Your task to perform on an android device: Turn on the flashlight Image 0: 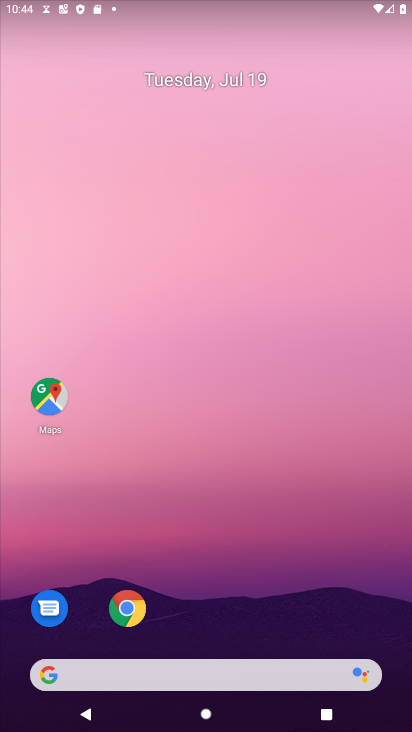
Step 0: drag from (290, 584) to (290, 78)
Your task to perform on an android device: Turn on the flashlight Image 1: 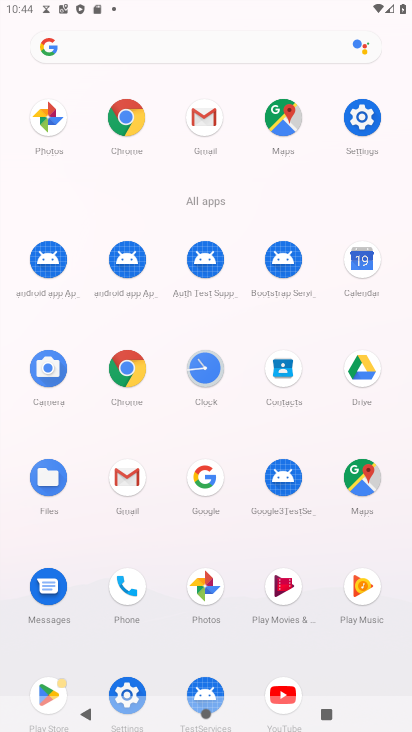
Step 1: click (353, 112)
Your task to perform on an android device: Turn on the flashlight Image 2: 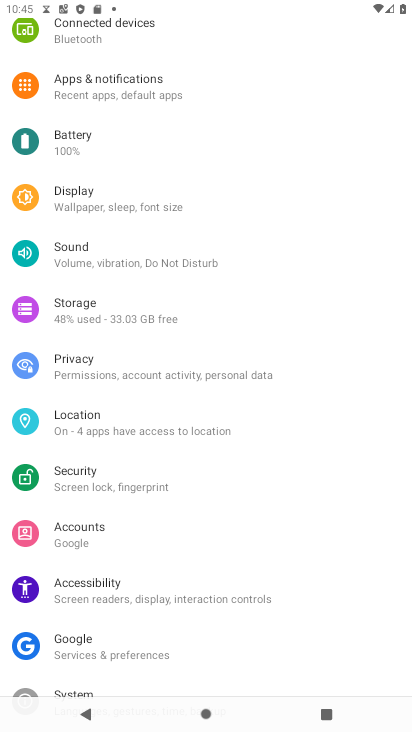
Step 2: task complete